Your task to perform on an android device: Open the calendar and show me this week's events? Image 0: 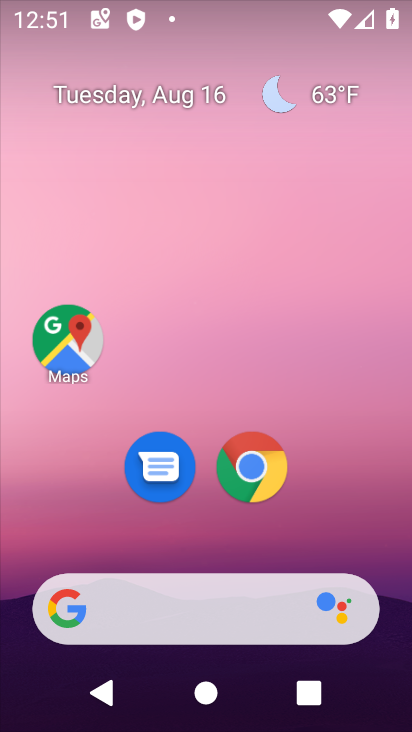
Step 0: drag from (362, 544) to (365, 165)
Your task to perform on an android device: Open the calendar and show me this week's events? Image 1: 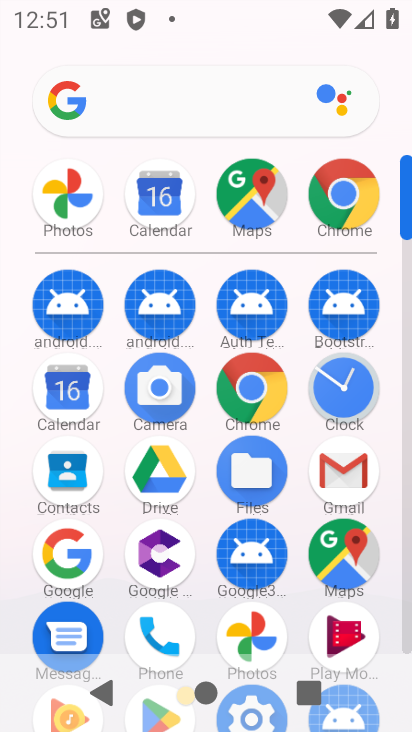
Step 1: click (74, 386)
Your task to perform on an android device: Open the calendar and show me this week's events? Image 2: 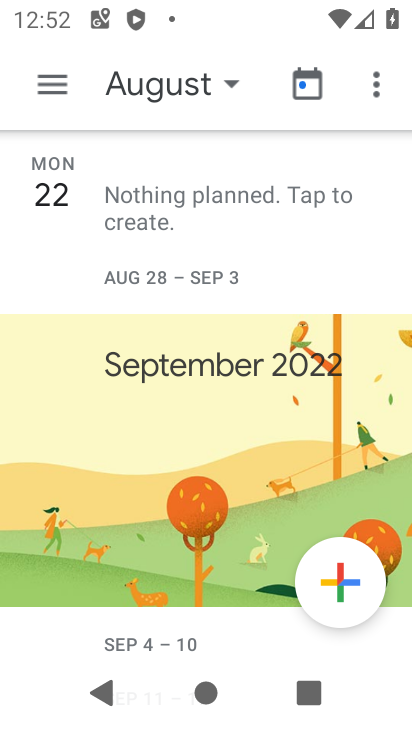
Step 2: click (233, 75)
Your task to perform on an android device: Open the calendar and show me this week's events? Image 3: 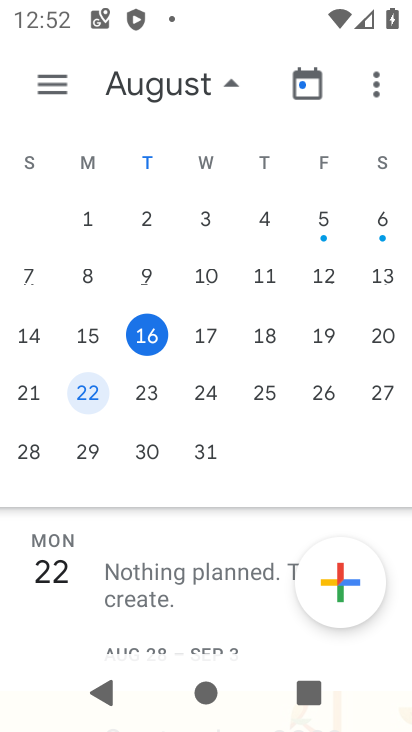
Step 3: click (144, 339)
Your task to perform on an android device: Open the calendar and show me this week's events? Image 4: 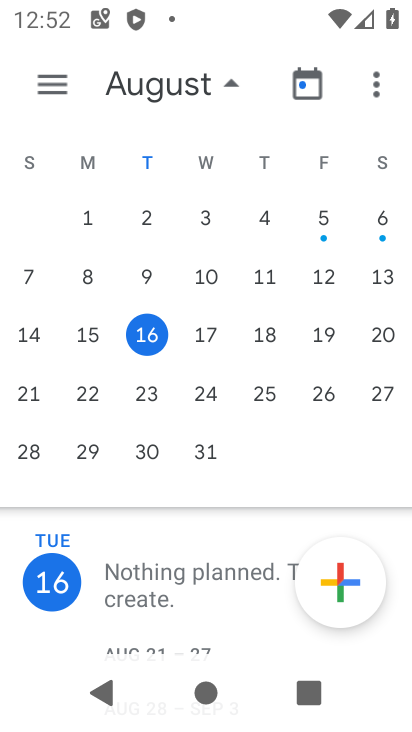
Step 4: task complete